Your task to perform on an android device: turn off picture-in-picture Image 0: 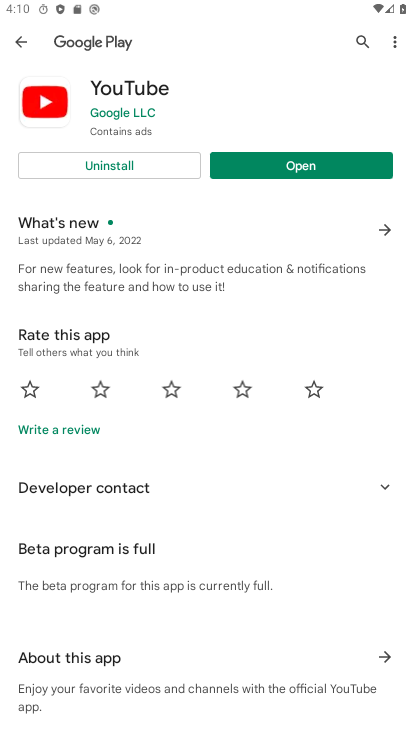
Step 0: press home button
Your task to perform on an android device: turn off picture-in-picture Image 1: 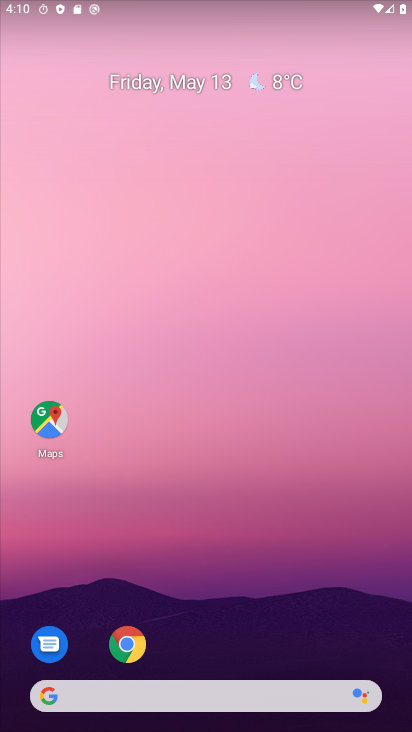
Step 1: click (124, 648)
Your task to perform on an android device: turn off picture-in-picture Image 2: 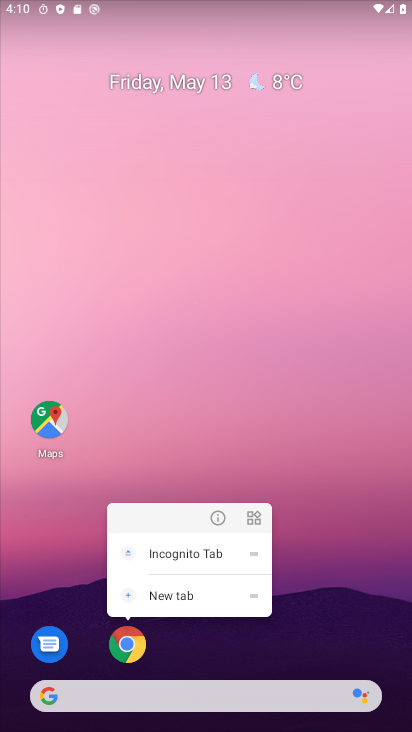
Step 2: click (215, 523)
Your task to perform on an android device: turn off picture-in-picture Image 3: 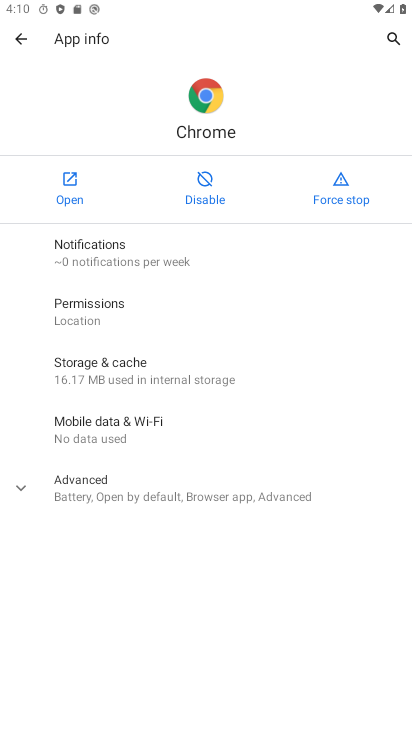
Step 3: click (178, 493)
Your task to perform on an android device: turn off picture-in-picture Image 4: 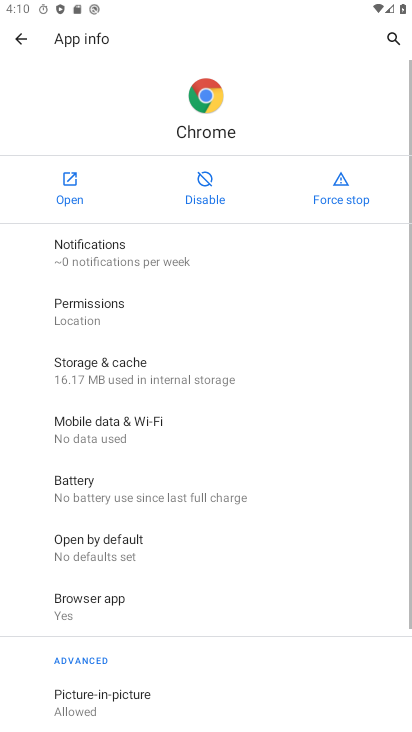
Step 4: drag from (201, 652) to (183, 301)
Your task to perform on an android device: turn off picture-in-picture Image 5: 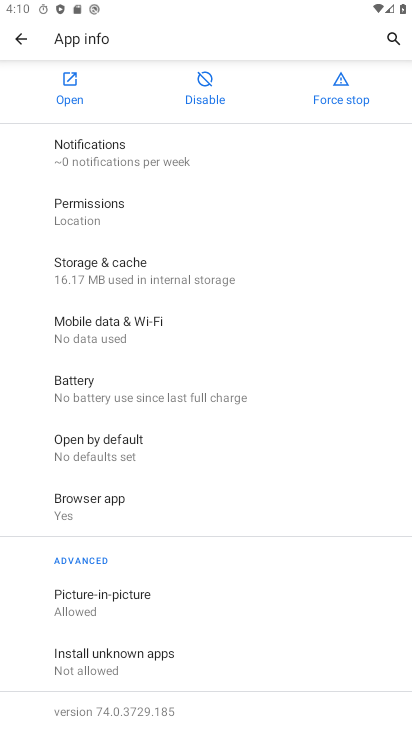
Step 5: click (170, 621)
Your task to perform on an android device: turn off picture-in-picture Image 6: 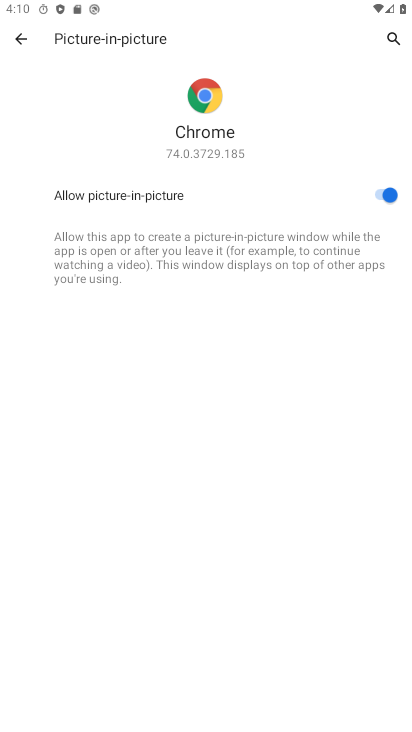
Step 6: click (379, 201)
Your task to perform on an android device: turn off picture-in-picture Image 7: 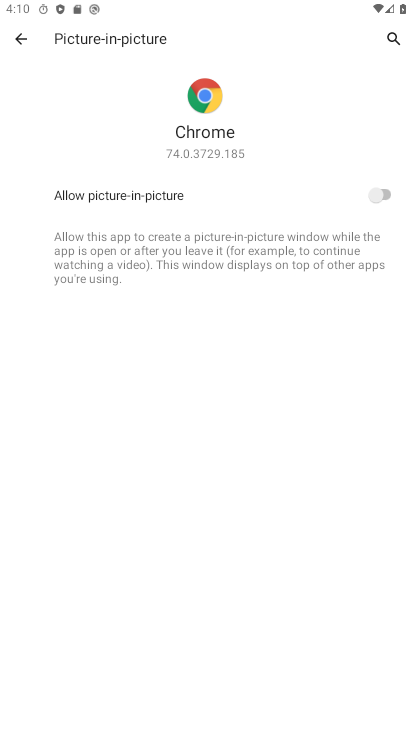
Step 7: task complete